Your task to perform on an android device: toggle location history Image 0: 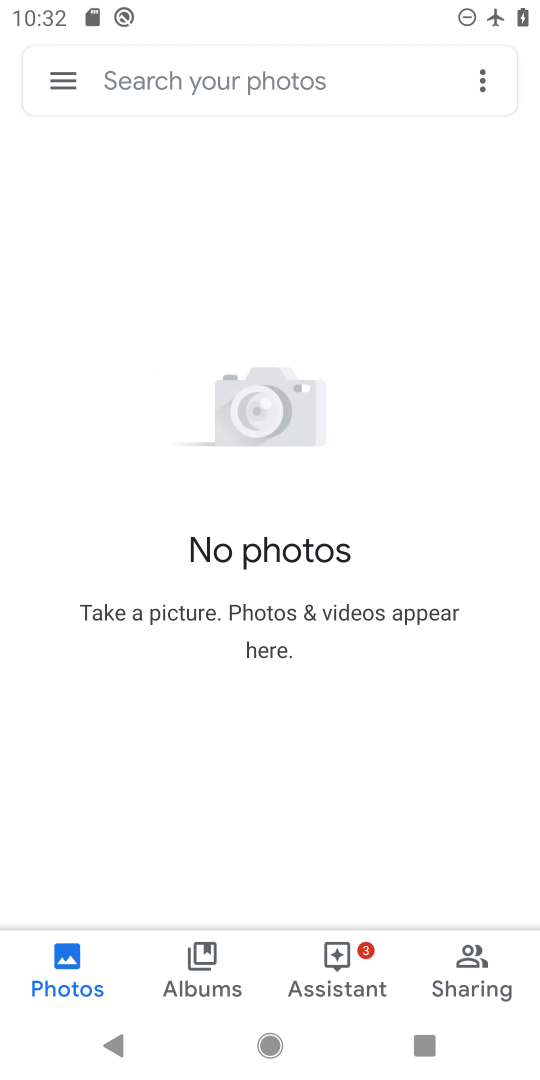
Step 0: click (272, 1046)
Your task to perform on an android device: toggle location history Image 1: 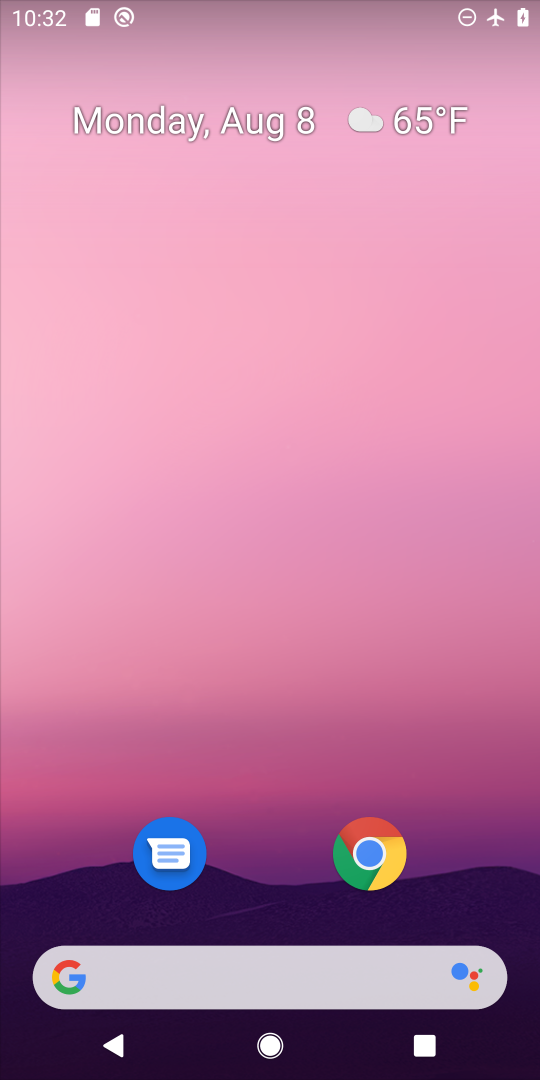
Step 1: drag from (245, 895) to (136, 29)
Your task to perform on an android device: toggle location history Image 2: 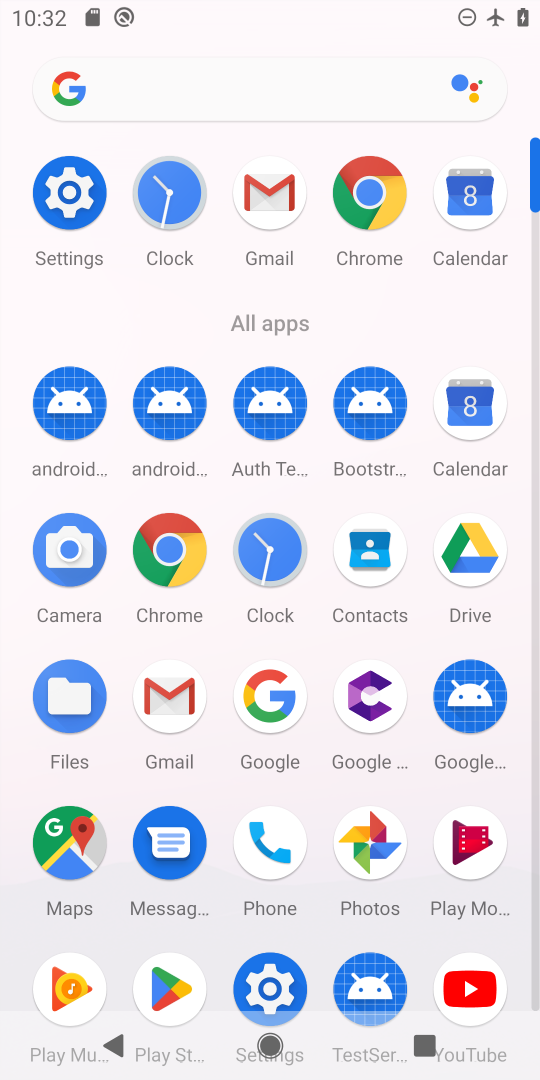
Step 2: click (78, 201)
Your task to perform on an android device: toggle location history Image 3: 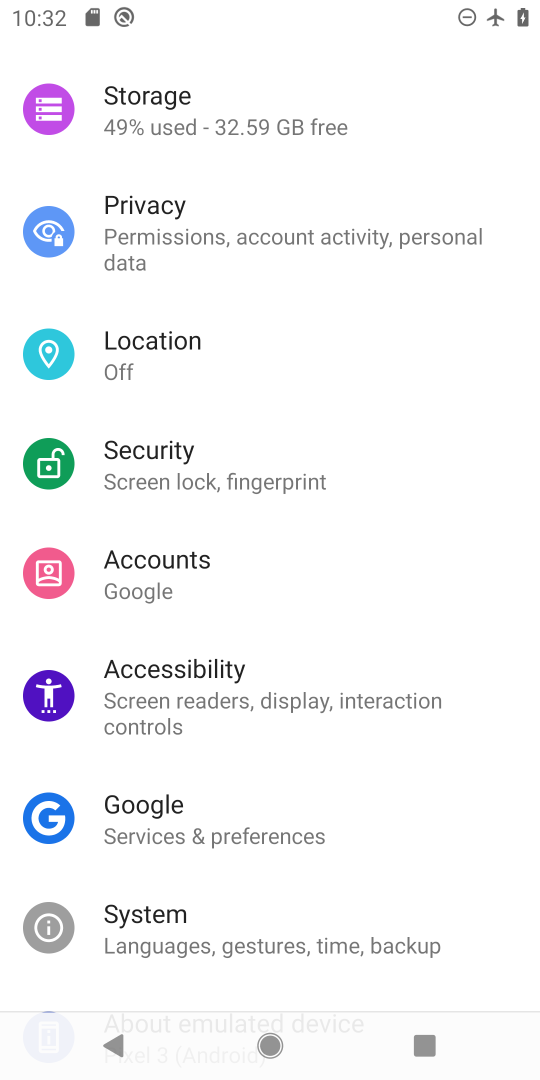
Step 3: click (149, 354)
Your task to perform on an android device: toggle location history Image 4: 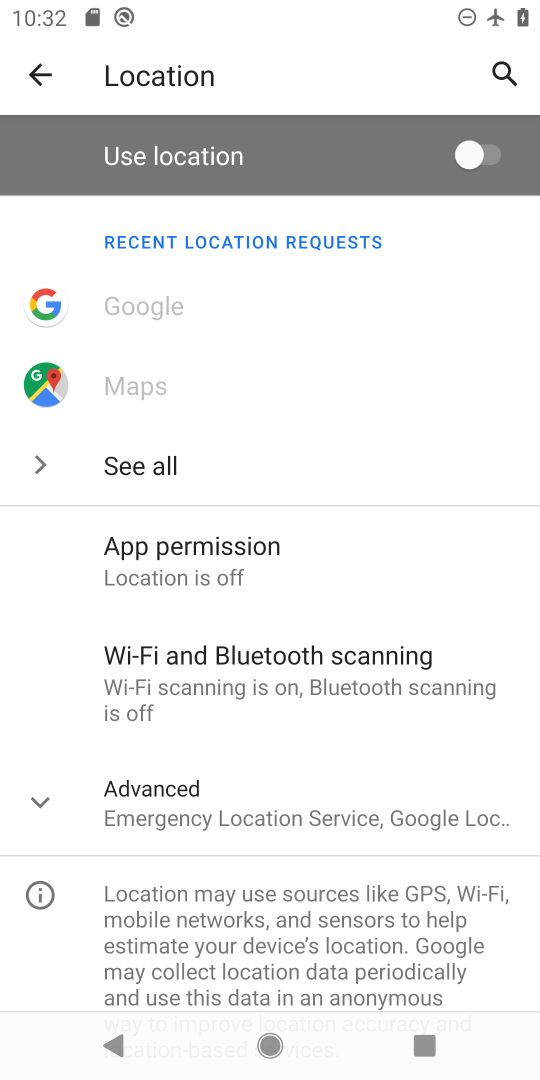
Step 4: click (201, 814)
Your task to perform on an android device: toggle location history Image 5: 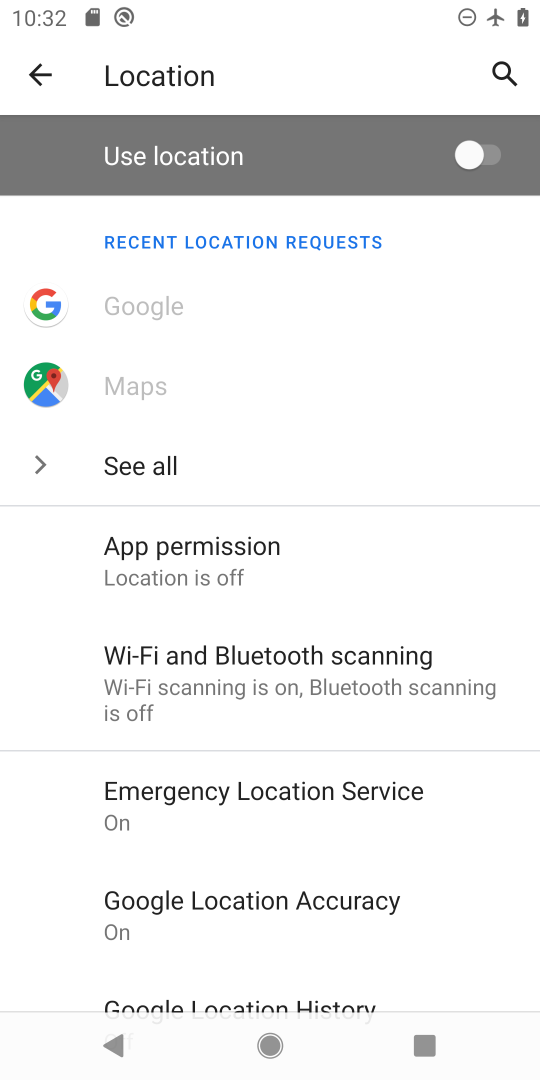
Step 5: click (229, 1003)
Your task to perform on an android device: toggle location history Image 6: 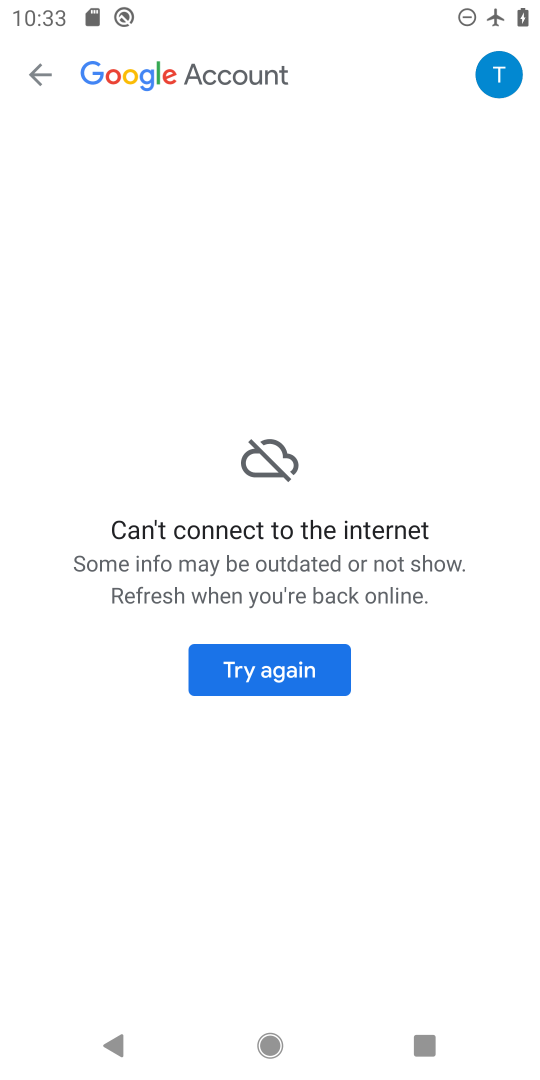
Step 6: drag from (394, 1) to (342, 787)
Your task to perform on an android device: toggle location history Image 7: 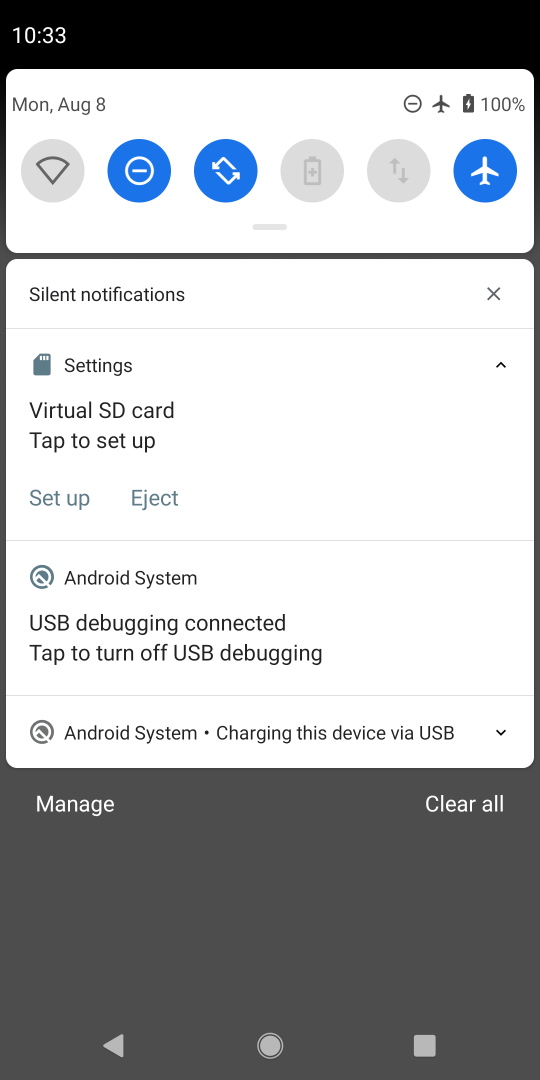
Step 7: click (486, 169)
Your task to perform on an android device: toggle location history Image 8: 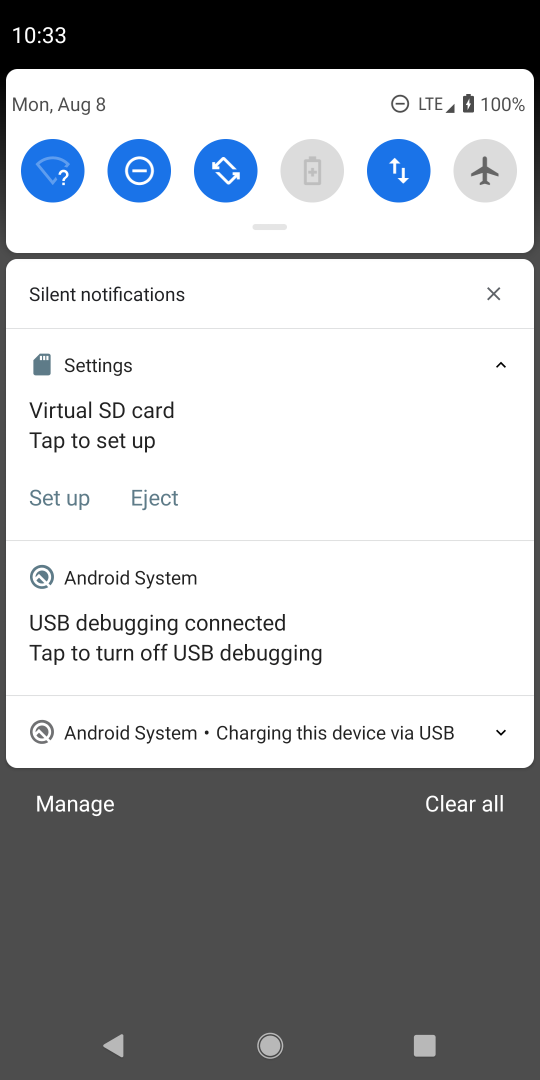
Step 8: click (140, 170)
Your task to perform on an android device: toggle location history Image 9: 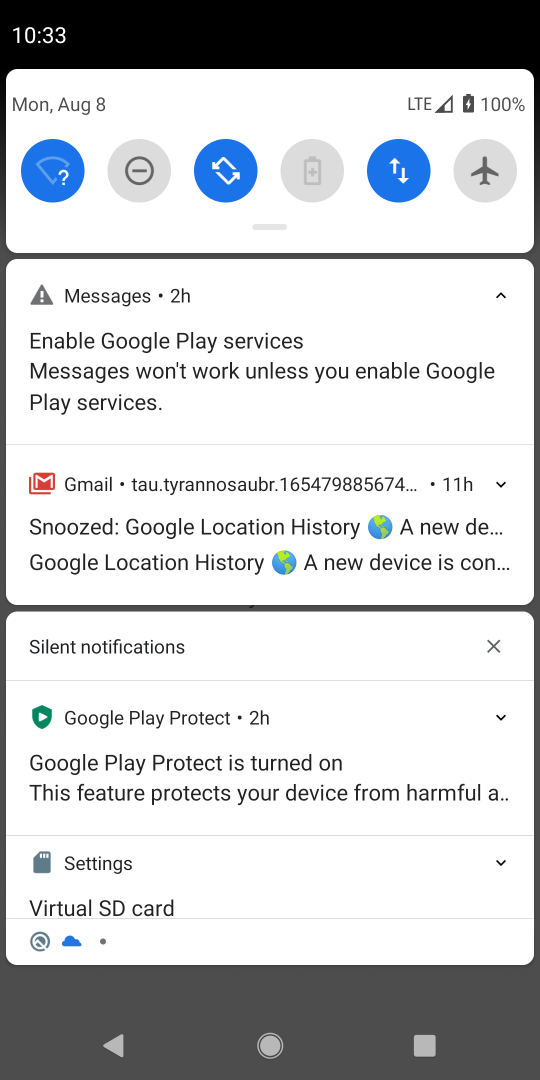
Step 9: click (250, 840)
Your task to perform on an android device: toggle location history Image 10: 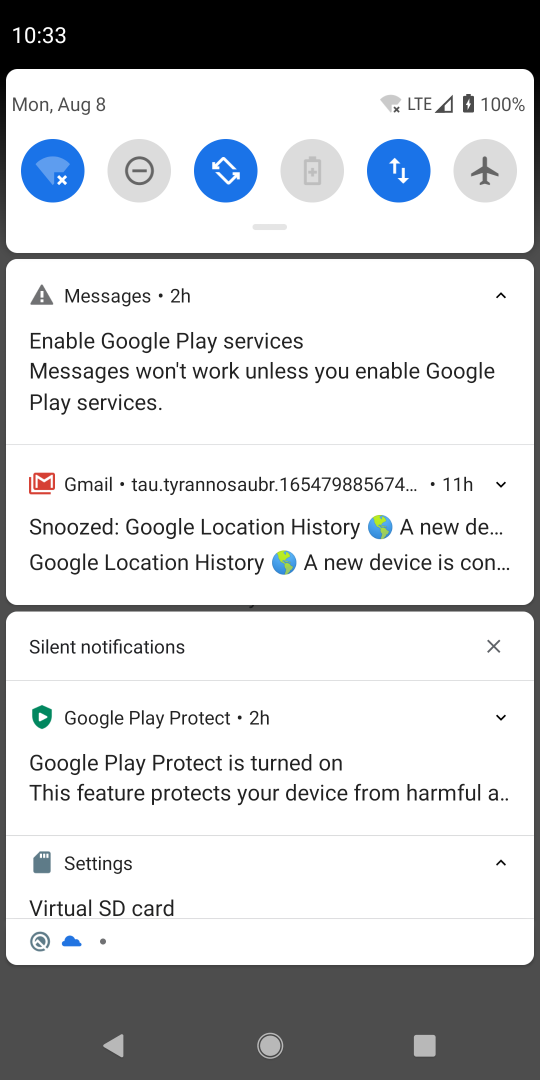
Step 10: click (369, 994)
Your task to perform on an android device: toggle location history Image 11: 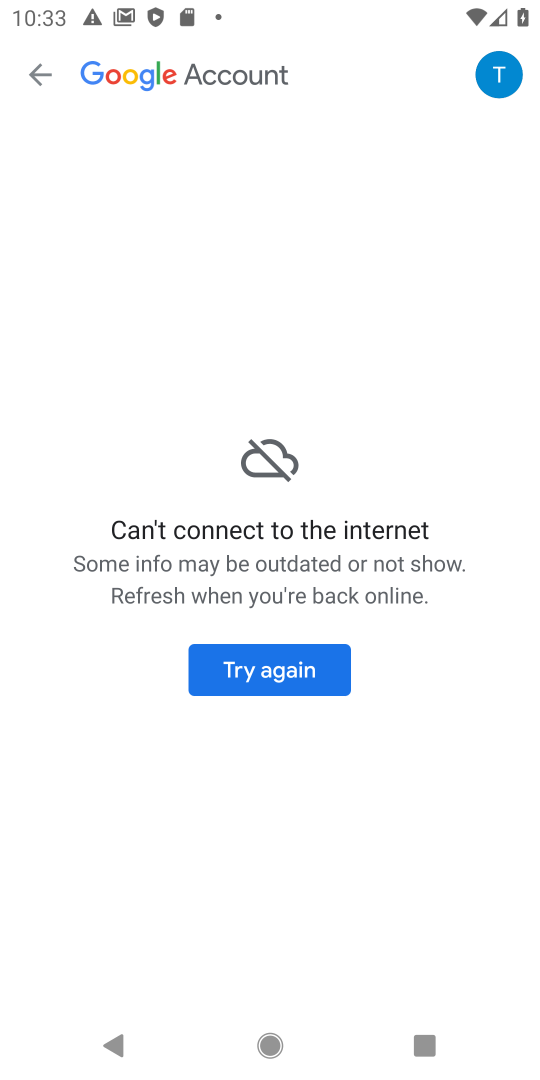
Step 11: click (268, 662)
Your task to perform on an android device: toggle location history Image 12: 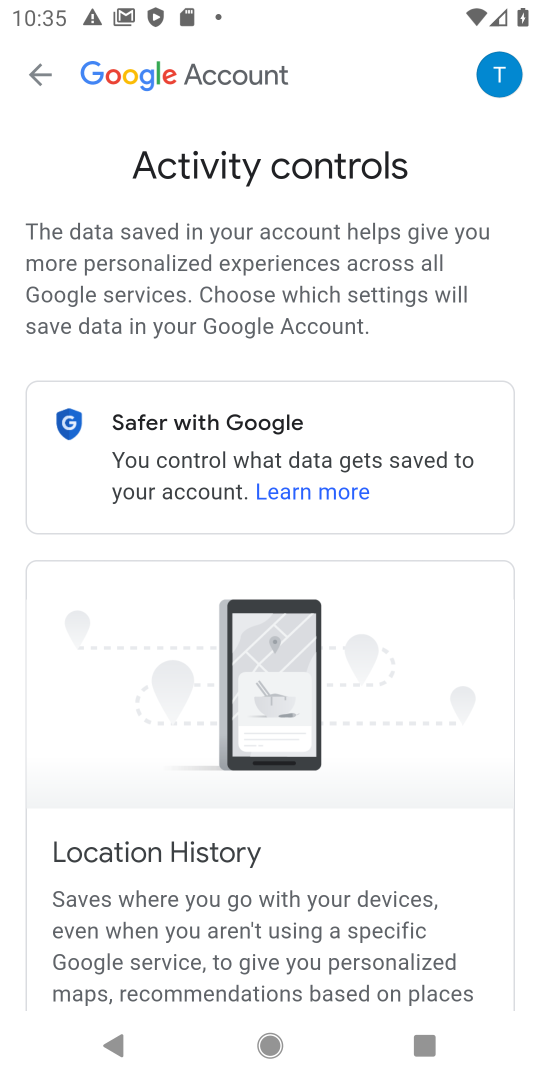
Step 12: task complete